Your task to perform on an android device: Show me the alarms in the clock app Image 0: 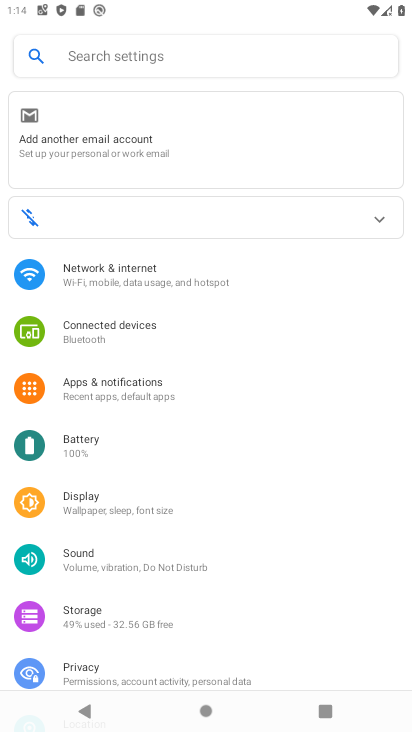
Step 0: press home button
Your task to perform on an android device: Show me the alarms in the clock app Image 1: 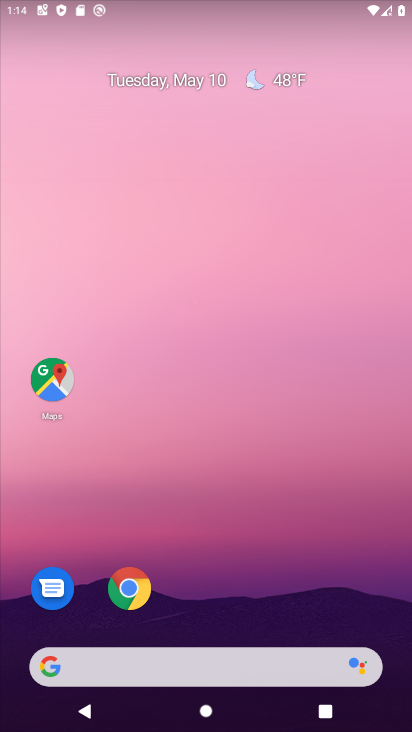
Step 1: drag from (239, 621) to (270, 263)
Your task to perform on an android device: Show me the alarms in the clock app Image 2: 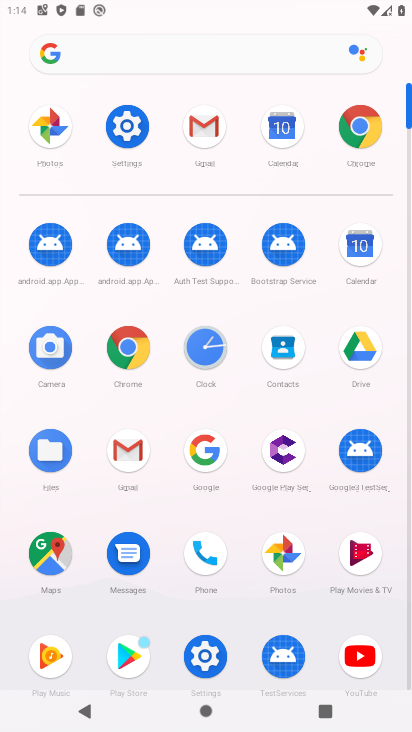
Step 2: click (202, 345)
Your task to perform on an android device: Show me the alarms in the clock app Image 3: 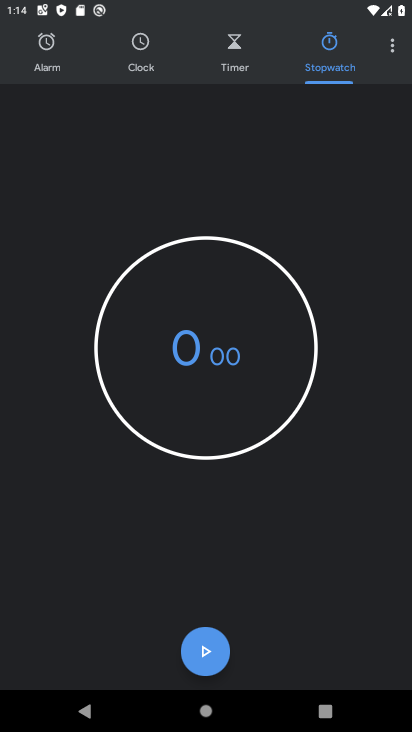
Step 3: click (57, 49)
Your task to perform on an android device: Show me the alarms in the clock app Image 4: 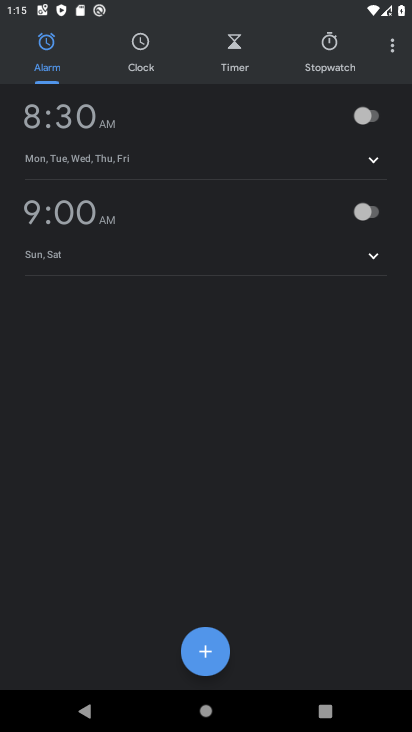
Step 4: task complete